Your task to perform on an android device: allow notifications from all sites in the chrome app Image 0: 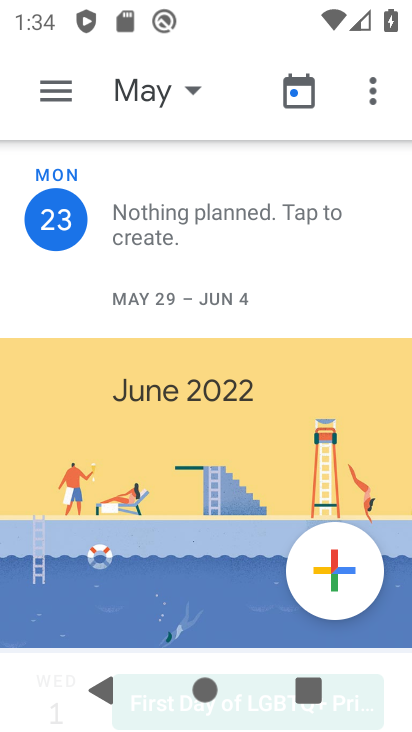
Step 0: press home button
Your task to perform on an android device: allow notifications from all sites in the chrome app Image 1: 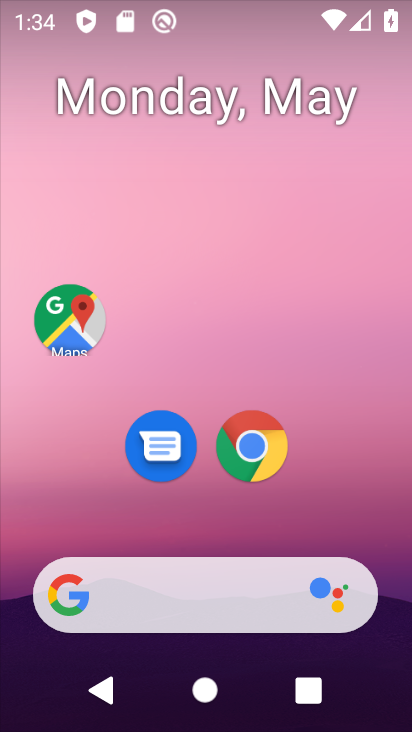
Step 1: drag from (294, 500) to (329, 132)
Your task to perform on an android device: allow notifications from all sites in the chrome app Image 2: 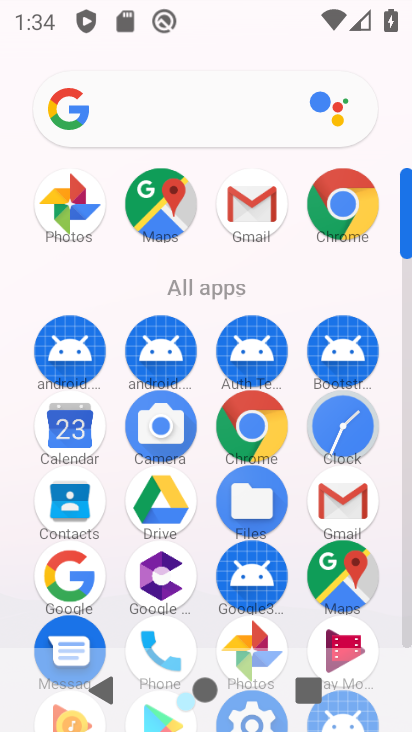
Step 2: click (345, 211)
Your task to perform on an android device: allow notifications from all sites in the chrome app Image 3: 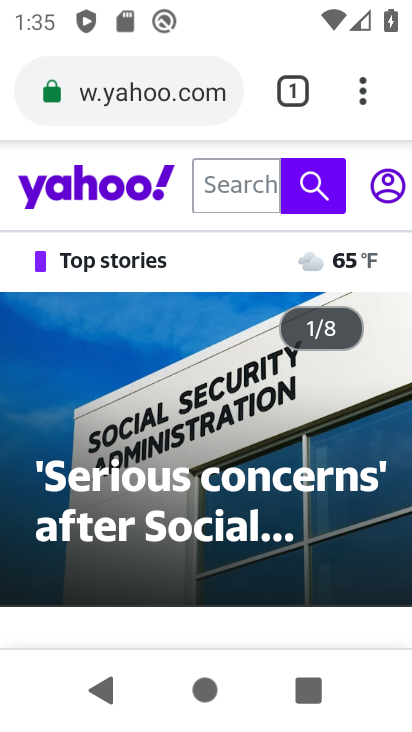
Step 3: drag from (369, 94) to (133, 491)
Your task to perform on an android device: allow notifications from all sites in the chrome app Image 4: 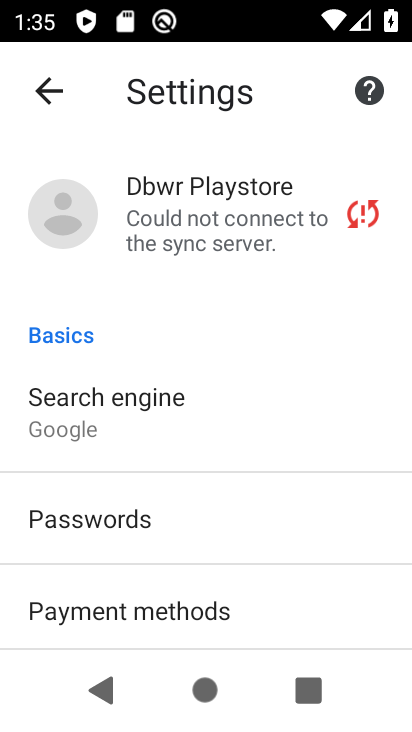
Step 4: drag from (250, 556) to (236, 365)
Your task to perform on an android device: allow notifications from all sites in the chrome app Image 5: 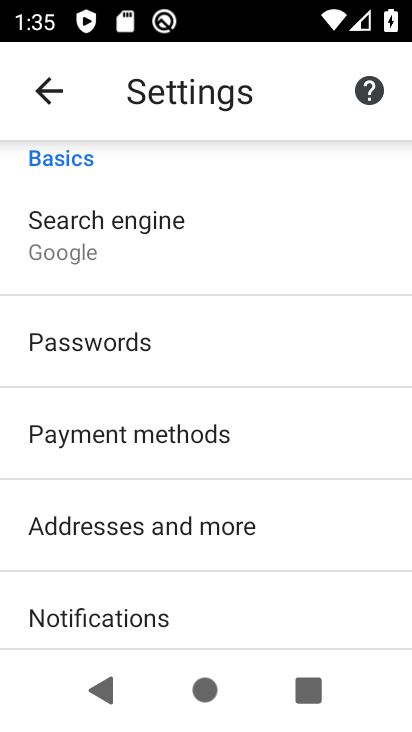
Step 5: drag from (202, 611) to (236, 286)
Your task to perform on an android device: allow notifications from all sites in the chrome app Image 6: 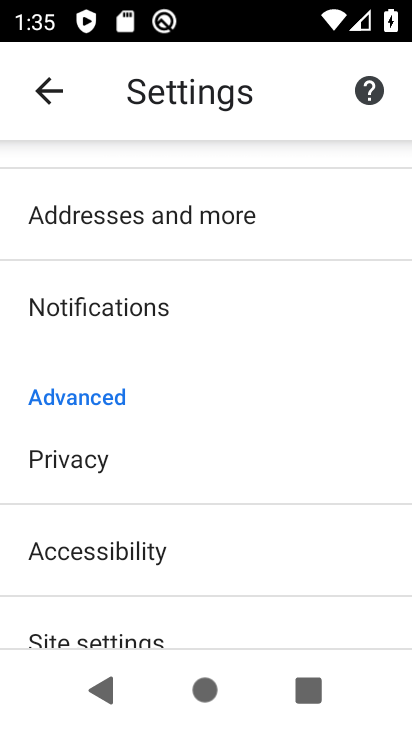
Step 6: drag from (193, 609) to (202, 420)
Your task to perform on an android device: allow notifications from all sites in the chrome app Image 7: 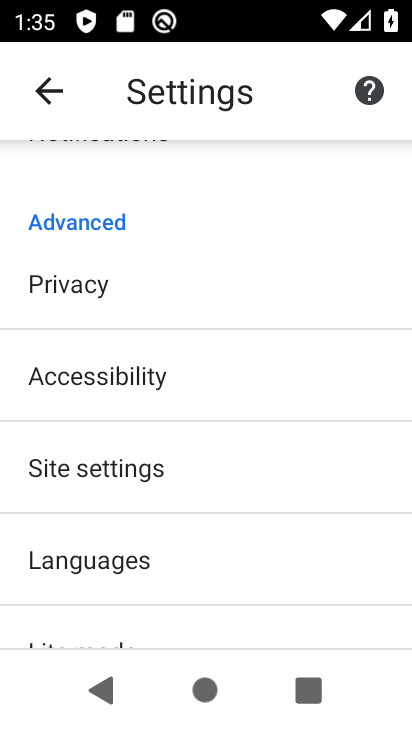
Step 7: click (185, 455)
Your task to perform on an android device: allow notifications from all sites in the chrome app Image 8: 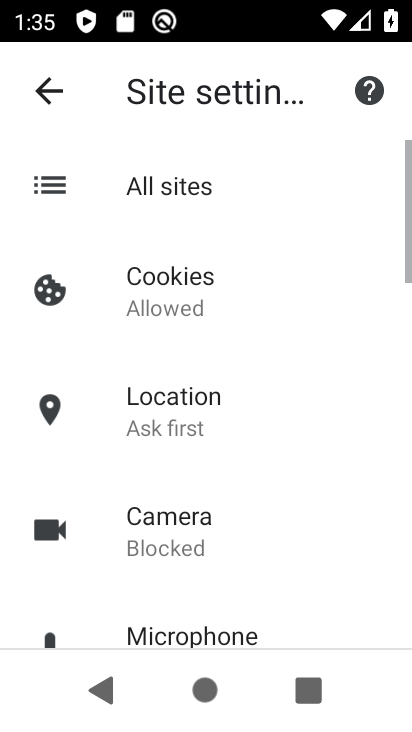
Step 8: click (234, 176)
Your task to perform on an android device: allow notifications from all sites in the chrome app Image 9: 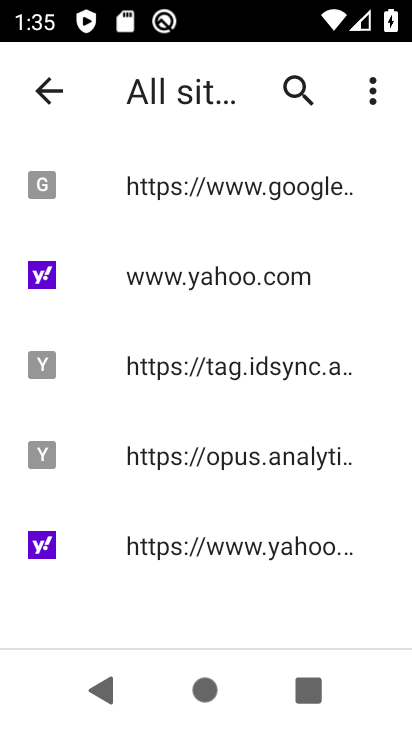
Step 9: click (259, 191)
Your task to perform on an android device: allow notifications from all sites in the chrome app Image 10: 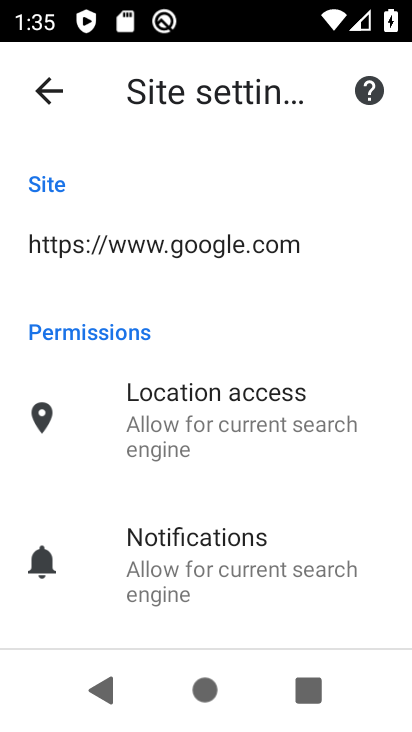
Step 10: task complete